Your task to perform on an android device: see creations saved in the google photos Image 0: 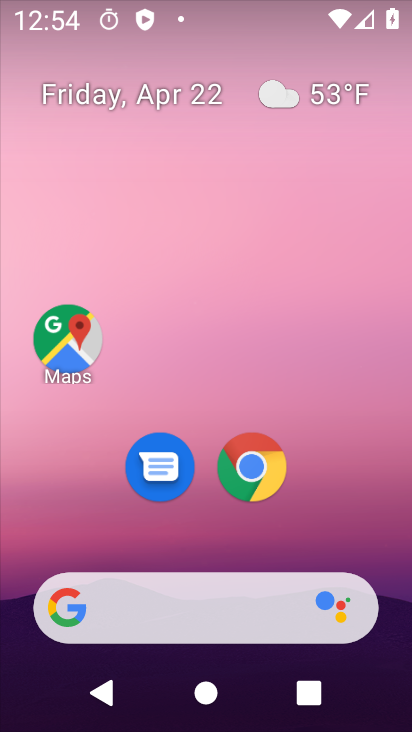
Step 0: drag from (162, 564) to (189, 92)
Your task to perform on an android device: see creations saved in the google photos Image 1: 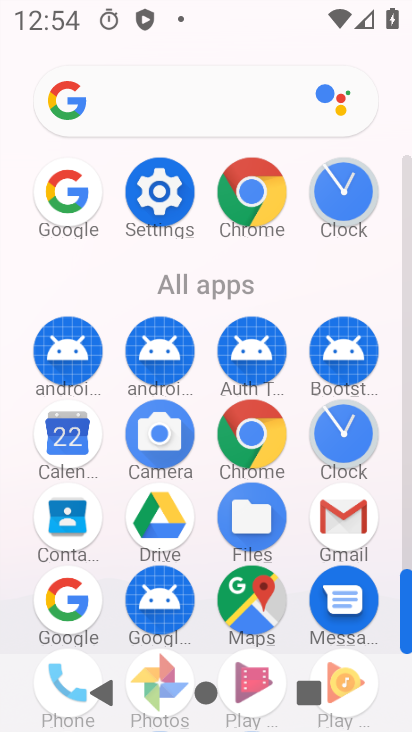
Step 1: drag from (144, 615) to (158, 368)
Your task to perform on an android device: see creations saved in the google photos Image 2: 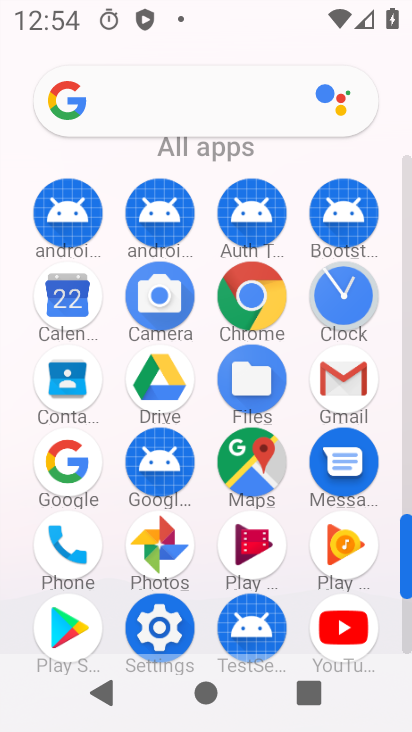
Step 2: click (161, 568)
Your task to perform on an android device: see creations saved in the google photos Image 3: 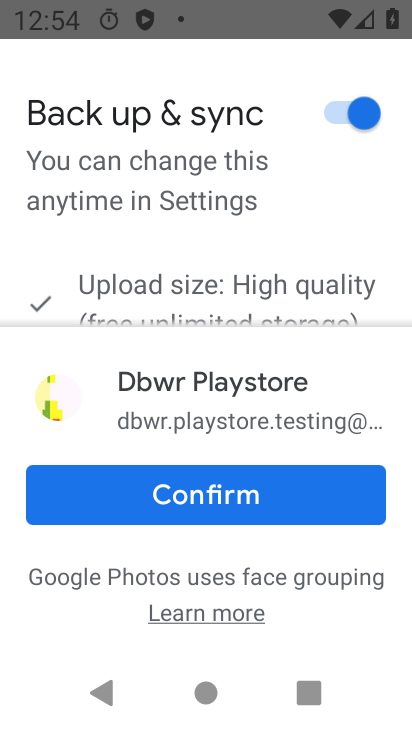
Step 3: click (253, 496)
Your task to perform on an android device: see creations saved in the google photos Image 4: 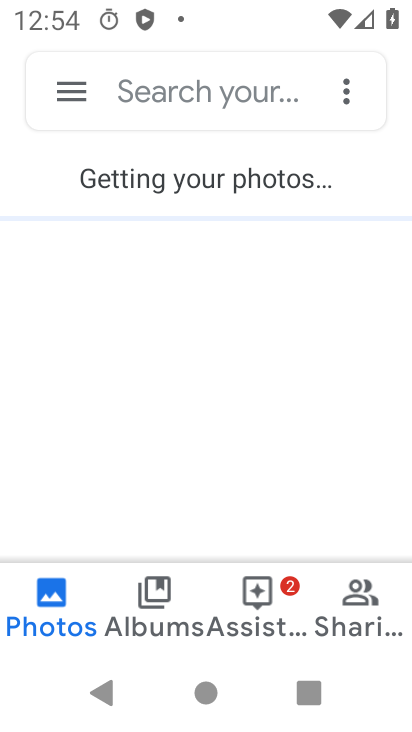
Step 4: click (170, 116)
Your task to perform on an android device: see creations saved in the google photos Image 5: 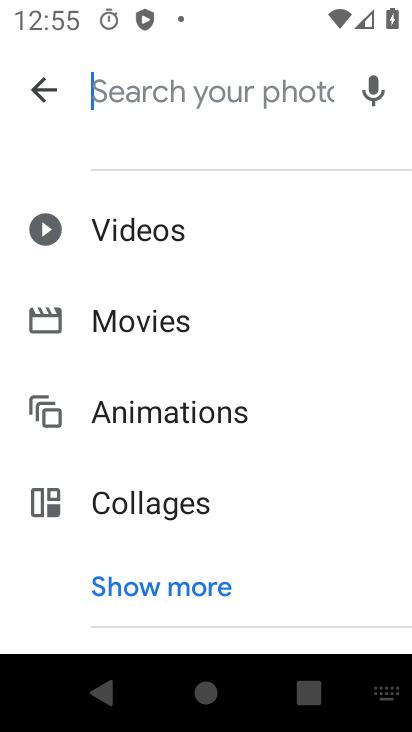
Step 5: click (171, 596)
Your task to perform on an android device: see creations saved in the google photos Image 6: 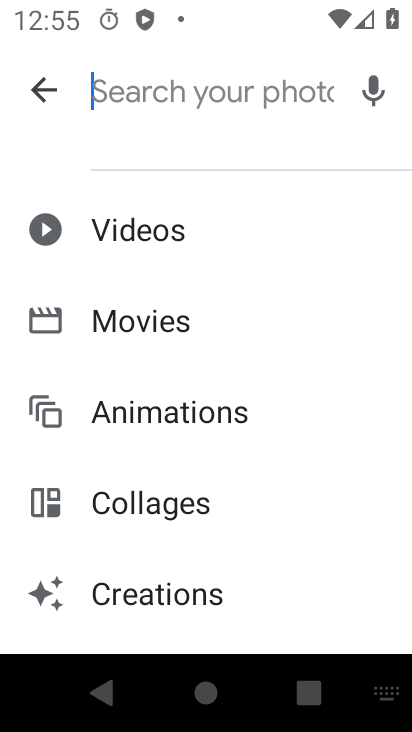
Step 6: click (169, 593)
Your task to perform on an android device: see creations saved in the google photos Image 7: 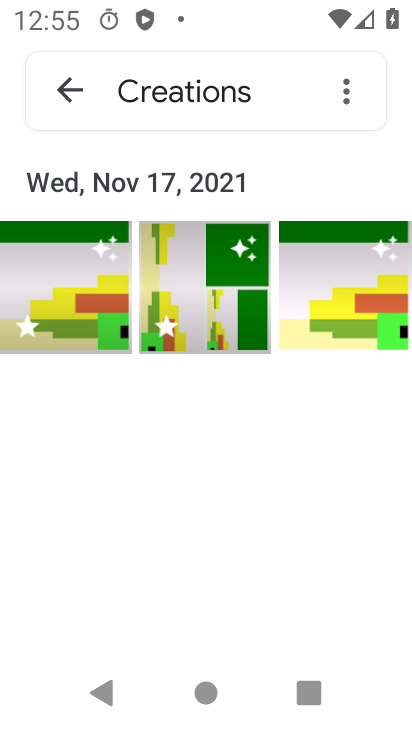
Step 7: task complete